Your task to perform on an android device: What's the weather today? Image 0: 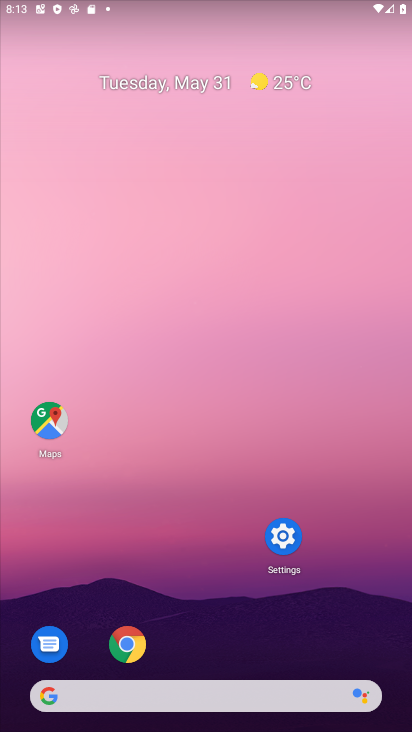
Step 0: drag from (252, 721) to (266, 362)
Your task to perform on an android device: What's the weather today? Image 1: 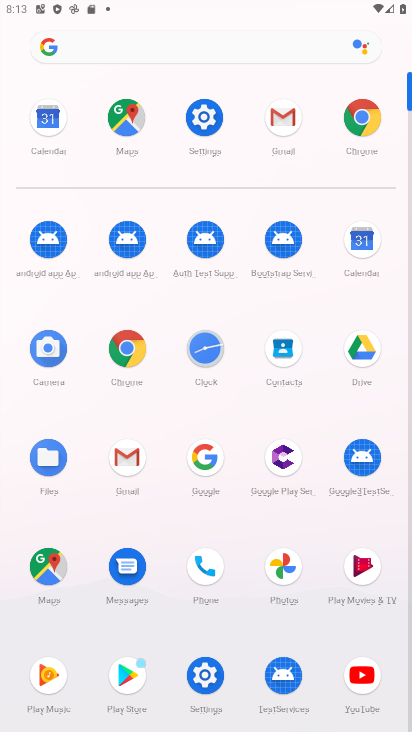
Step 1: click (111, 52)
Your task to perform on an android device: What's the weather today? Image 2: 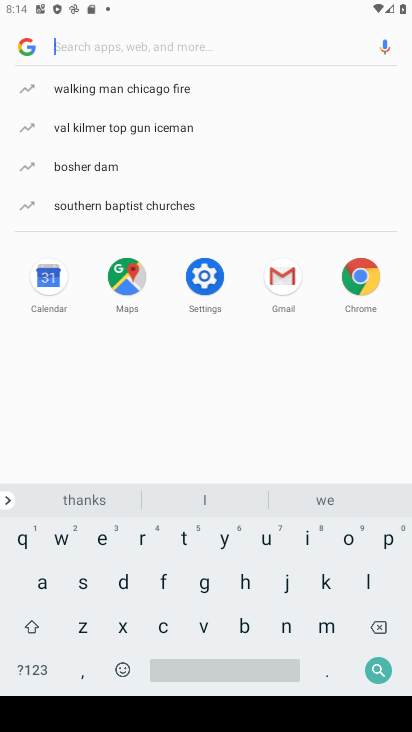
Step 2: click (62, 543)
Your task to perform on an android device: What's the weather today? Image 3: 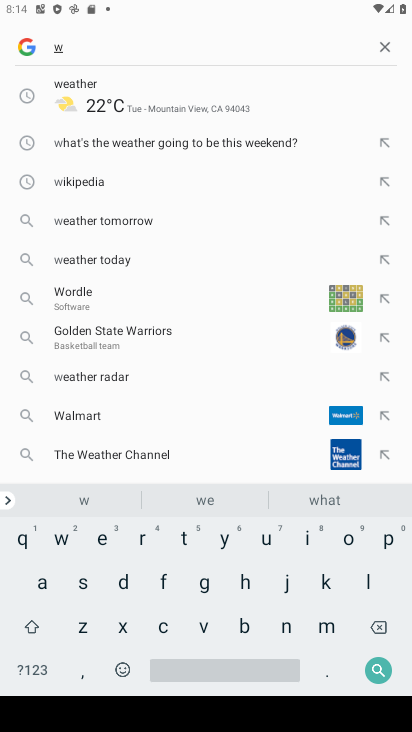
Step 3: click (104, 539)
Your task to perform on an android device: What's the weather today? Image 4: 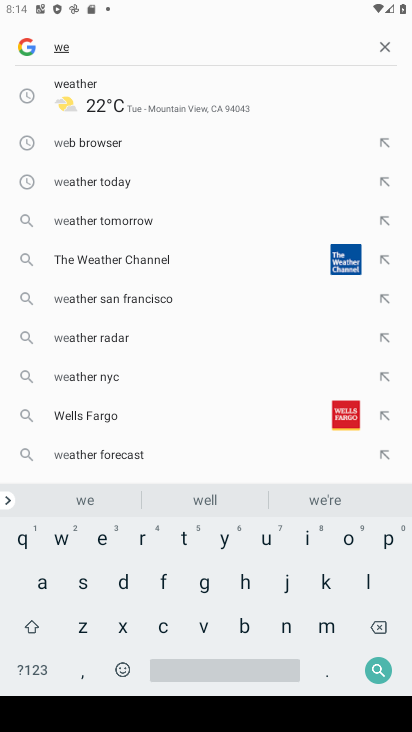
Step 4: click (111, 98)
Your task to perform on an android device: What's the weather today? Image 5: 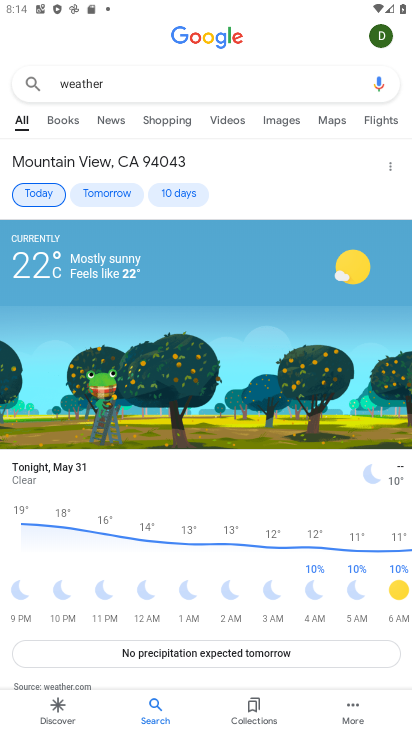
Step 5: task complete